Your task to perform on an android device: toggle sleep mode Image 0: 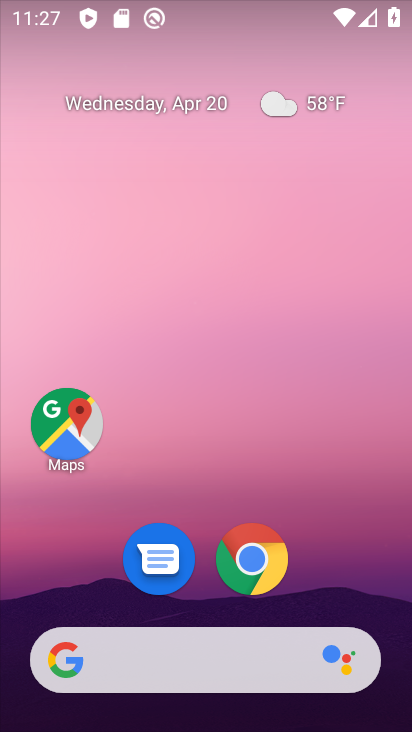
Step 0: drag from (298, 227) to (268, 43)
Your task to perform on an android device: toggle sleep mode Image 1: 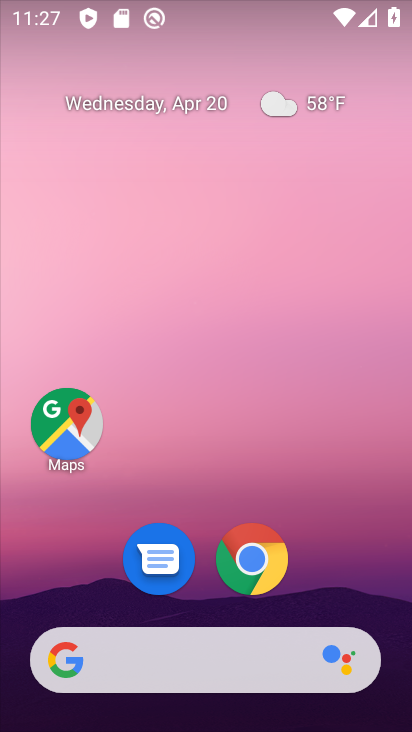
Step 1: drag from (341, 488) to (253, 33)
Your task to perform on an android device: toggle sleep mode Image 2: 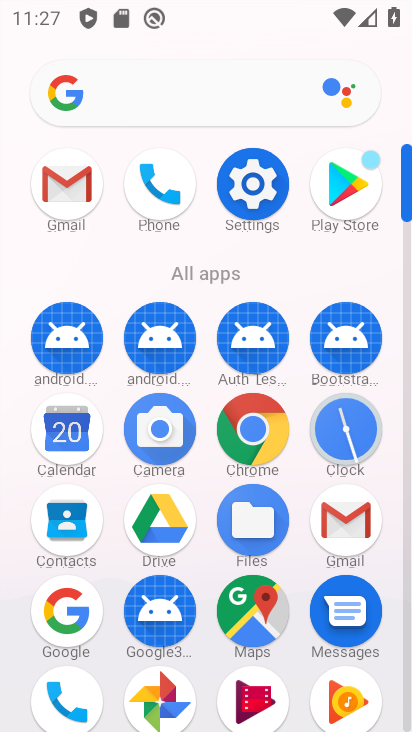
Step 2: click (258, 197)
Your task to perform on an android device: toggle sleep mode Image 3: 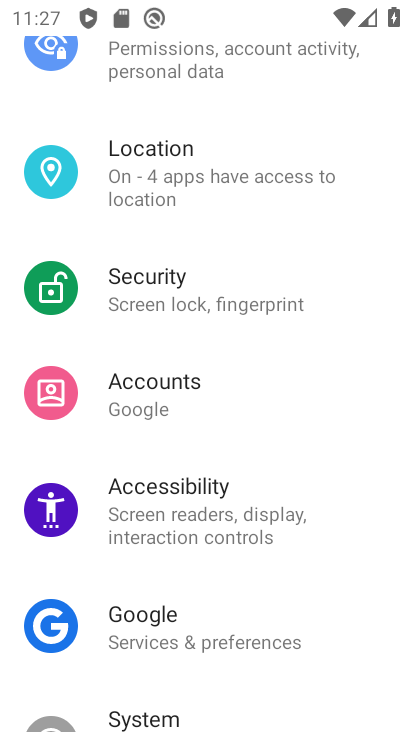
Step 3: drag from (255, 113) to (213, 606)
Your task to perform on an android device: toggle sleep mode Image 4: 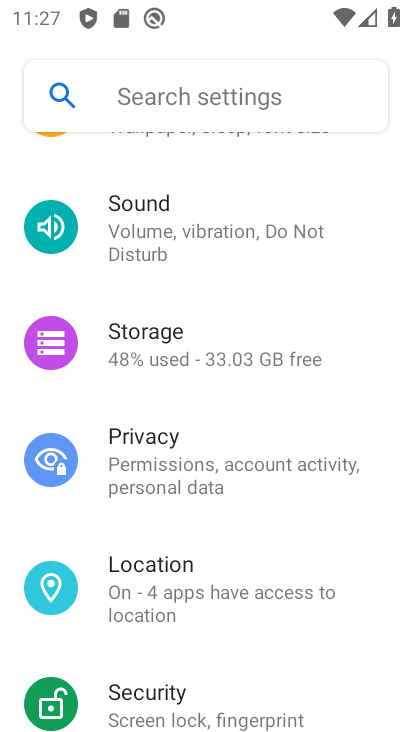
Step 4: drag from (253, 201) to (152, 686)
Your task to perform on an android device: toggle sleep mode Image 5: 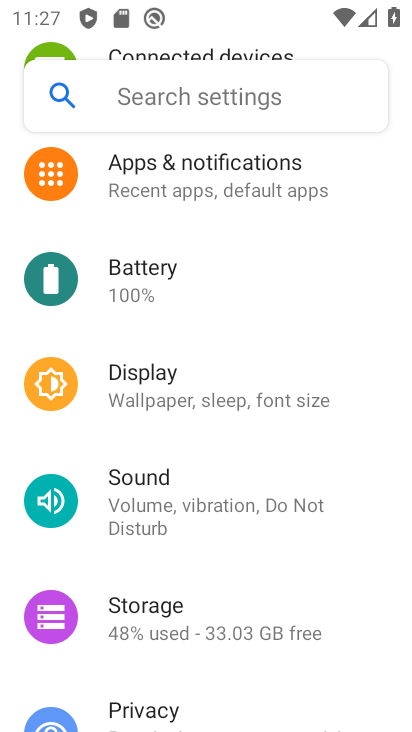
Step 5: drag from (229, 240) to (152, 647)
Your task to perform on an android device: toggle sleep mode Image 6: 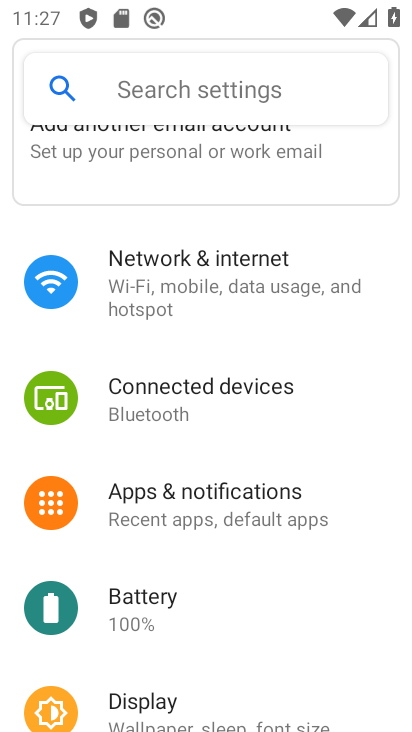
Step 6: click (210, 484)
Your task to perform on an android device: toggle sleep mode Image 7: 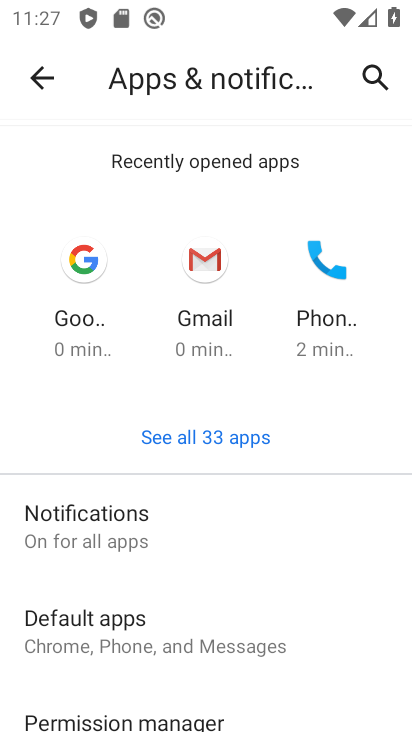
Step 7: click (48, 80)
Your task to perform on an android device: toggle sleep mode Image 8: 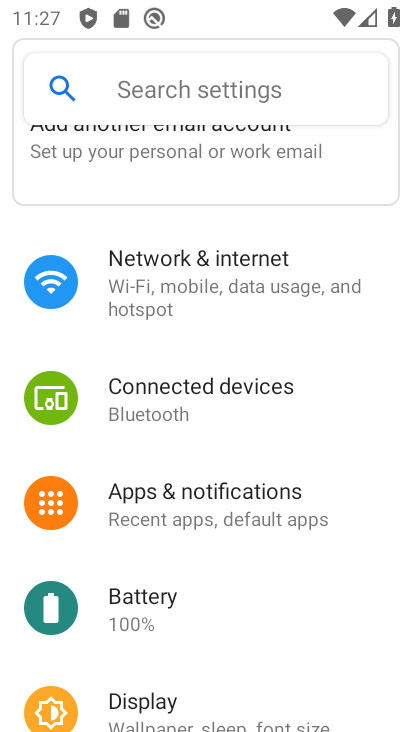
Step 8: click (169, 705)
Your task to perform on an android device: toggle sleep mode Image 9: 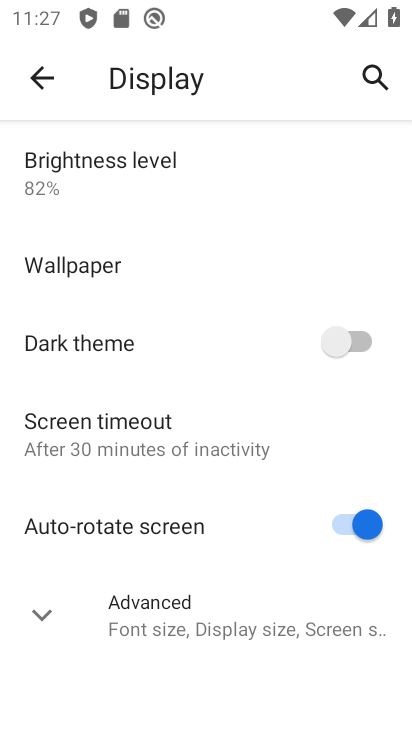
Step 9: task complete